Your task to perform on an android device: Is it going to rain today? Image 0: 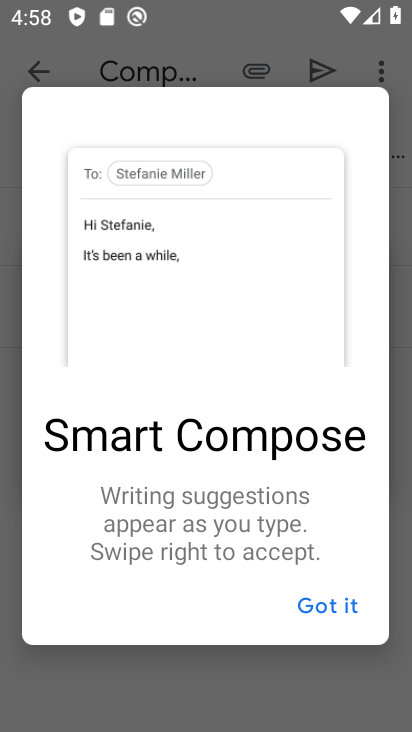
Step 0: press home button
Your task to perform on an android device: Is it going to rain today? Image 1: 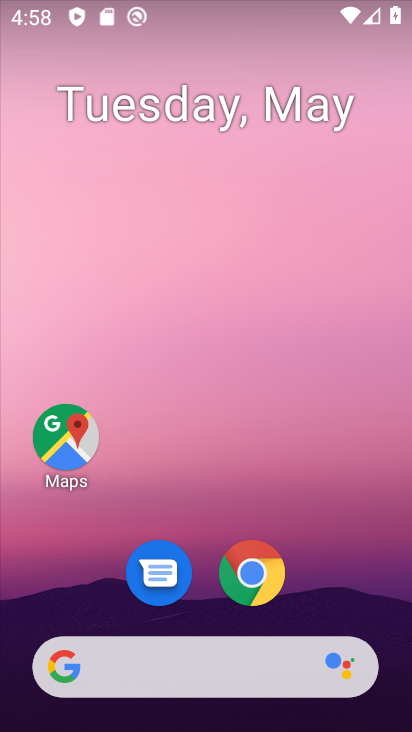
Step 1: drag from (176, 565) to (262, 157)
Your task to perform on an android device: Is it going to rain today? Image 2: 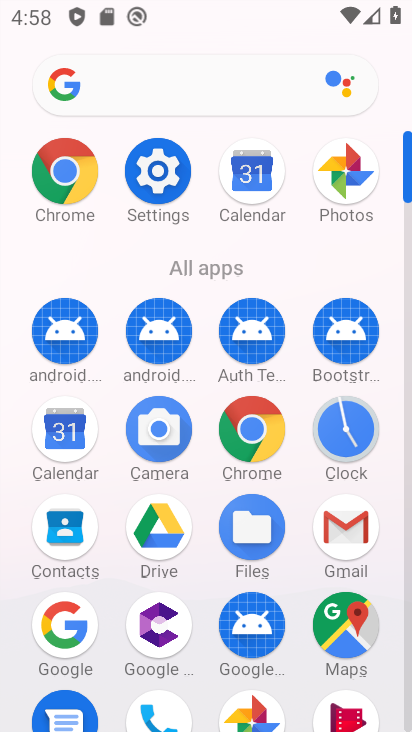
Step 2: click (176, 80)
Your task to perform on an android device: Is it going to rain today? Image 3: 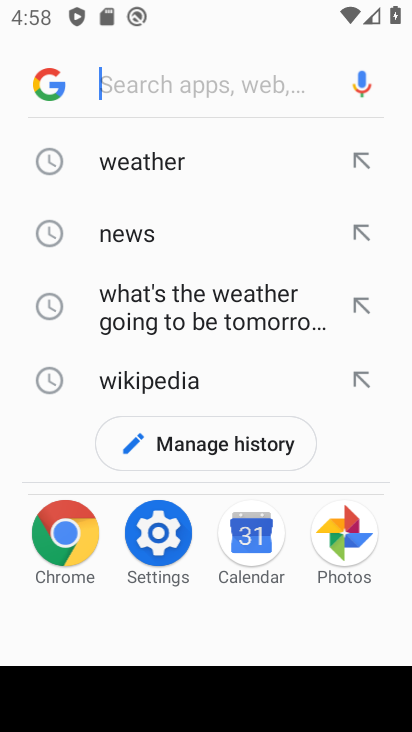
Step 3: click (147, 168)
Your task to perform on an android device: Is it going to rain today? Image 4: 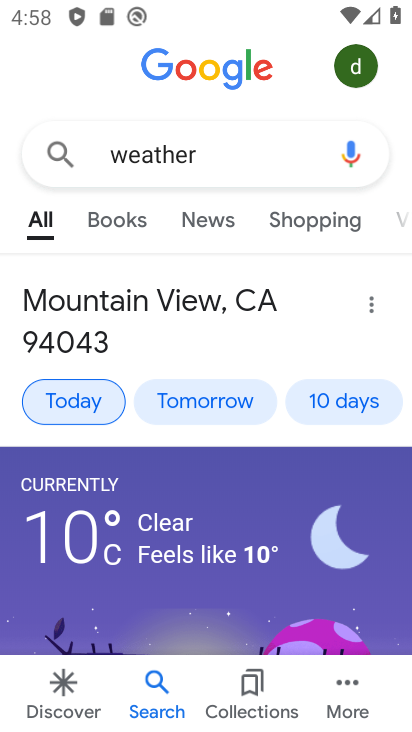
Step 4: task complete